Your task to perform on an android device: Empty the shopping cart on amazon.com. Search for apple airpods on amazon.com, select the first entry, add it to the cart, then select checkout. Image 0: 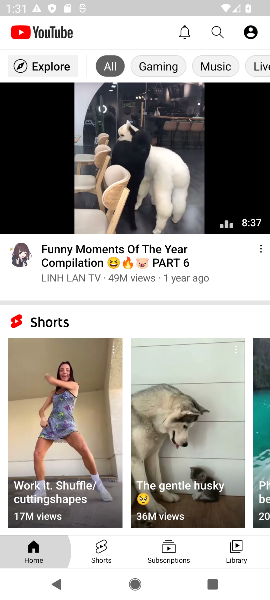
Step 0: press home button
Your task to perform on an android device: Empty the shopping cart on amazon.com. Search for apple airpods on amazon.com, select the first entry, add it to the cart, then select checkout. Image 1: 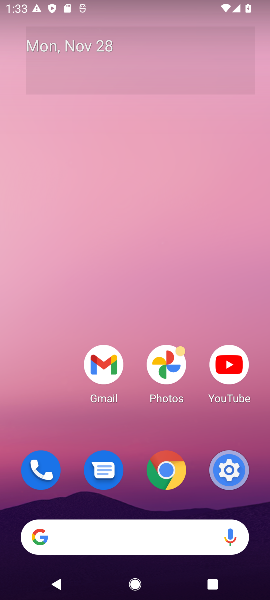
Step 1: task complete